Your task to perform on an android device: Add panasonic triple a to the cart on amazon, then select checkout. Image 0: 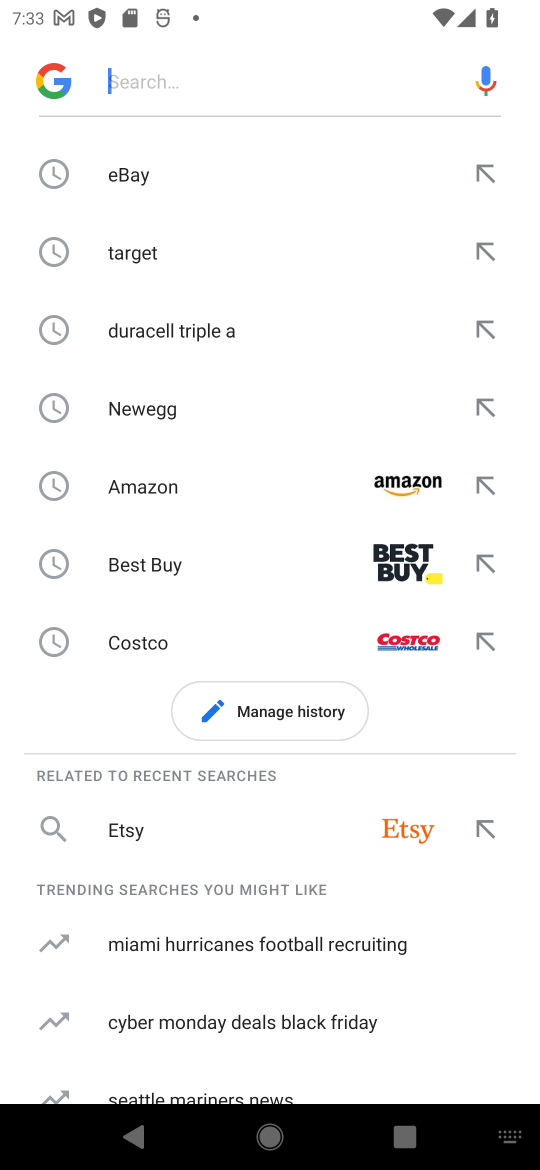
Step 0: press home button
Your task to perform on an android device: Add panasonic triple a to the cart on amazon, then select checkout. Image 1: 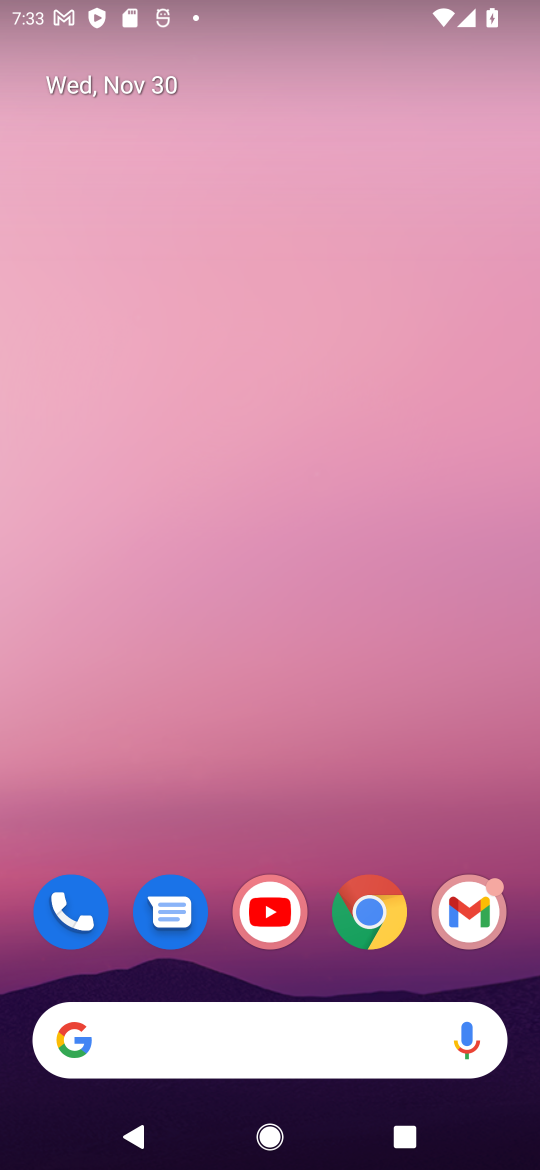
Step 1: click (247, 1048)
Your task to perform on an android device: Add panasonic triple a to the cart on amazon, then select checkout. Image 2: 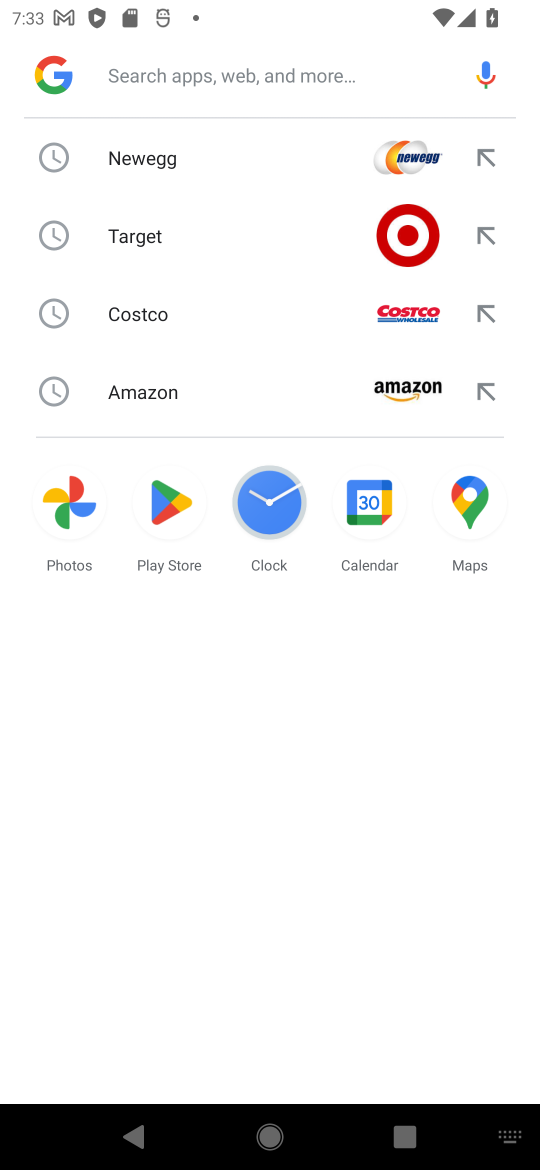
Step 2: click (259, 417)
Your task to perform on an android device: Add panasonic triple a to the cart on amazon, then select checkout. Image 3: 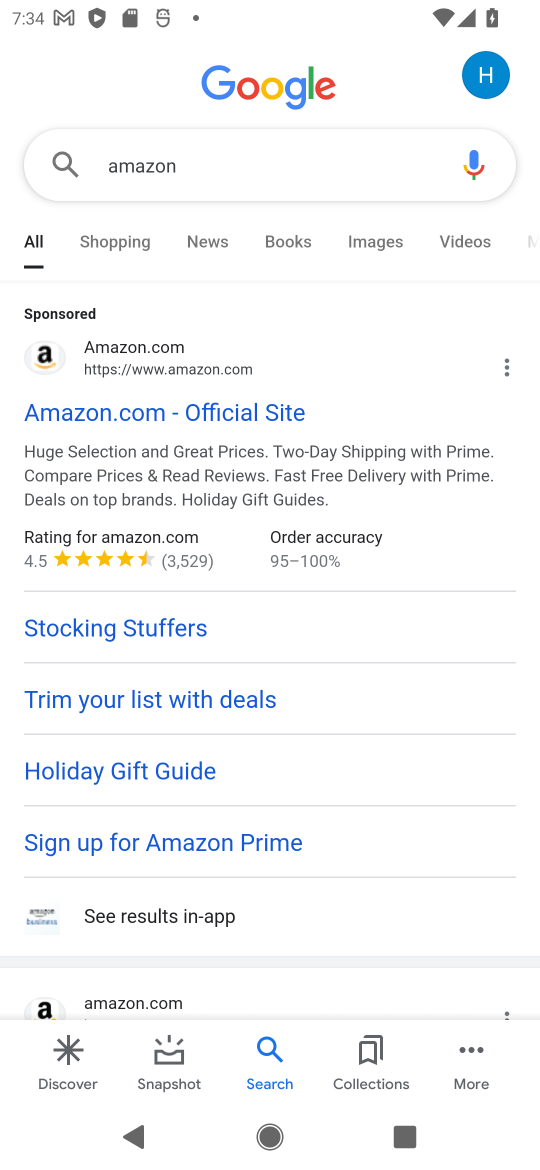
Step 3: click (138, 353)
Your task to perform on an android device: Add panasonic triple a to the cart on amazon, then select checkout. Image 4: 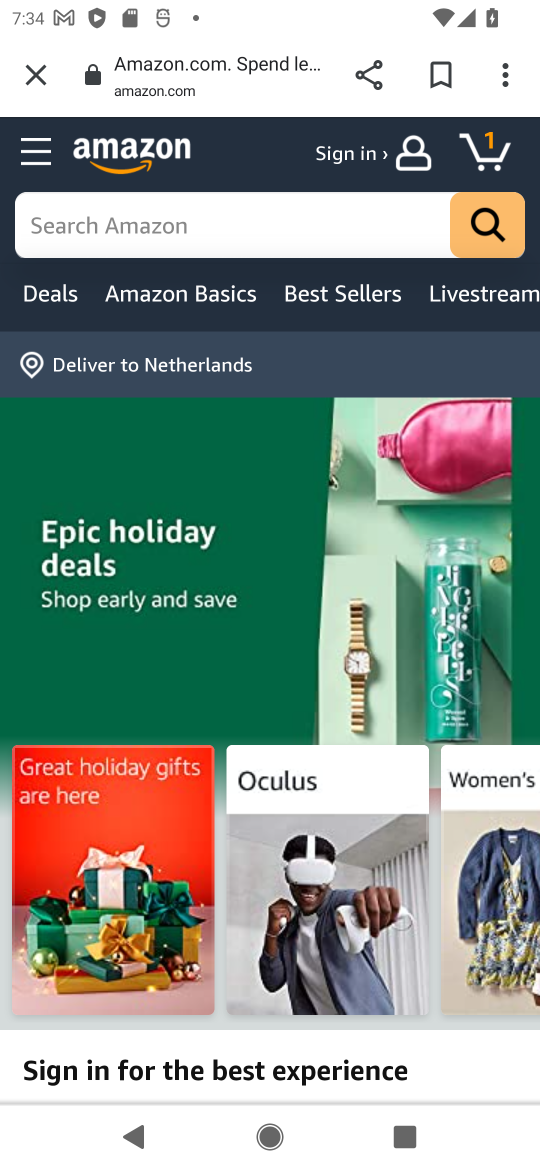
Step 4: click (120, 362)
Your task to perform on an android device: Add panasonic triple a to the cart on amazon, then select checkout. Image 5: 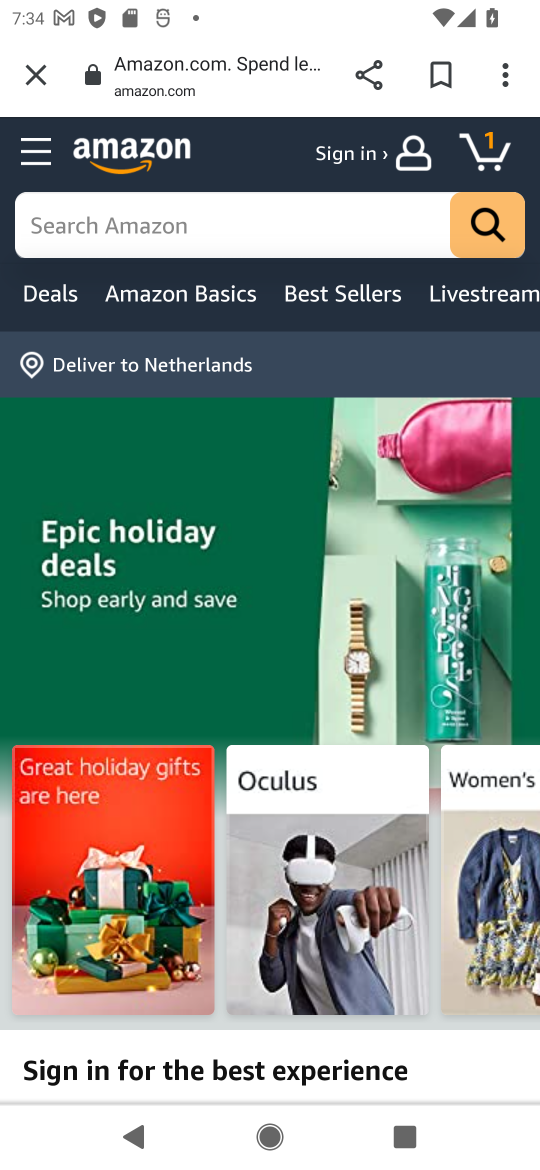
Step 5: click (87, 425)
Your task to perform on an android device: Add panasonic triple a to the cart on amazon, then select checkout. Image 6: 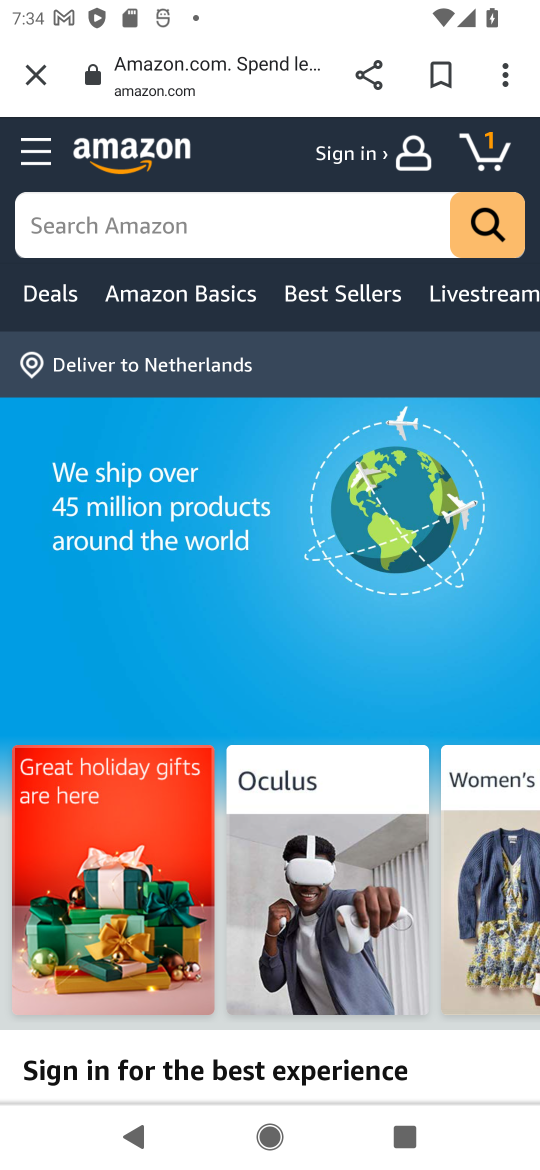
Step 6: press home button
Your task to perform on an android device: Add panasonic triple a to the cart on amazon, then select checkout. Image 7: 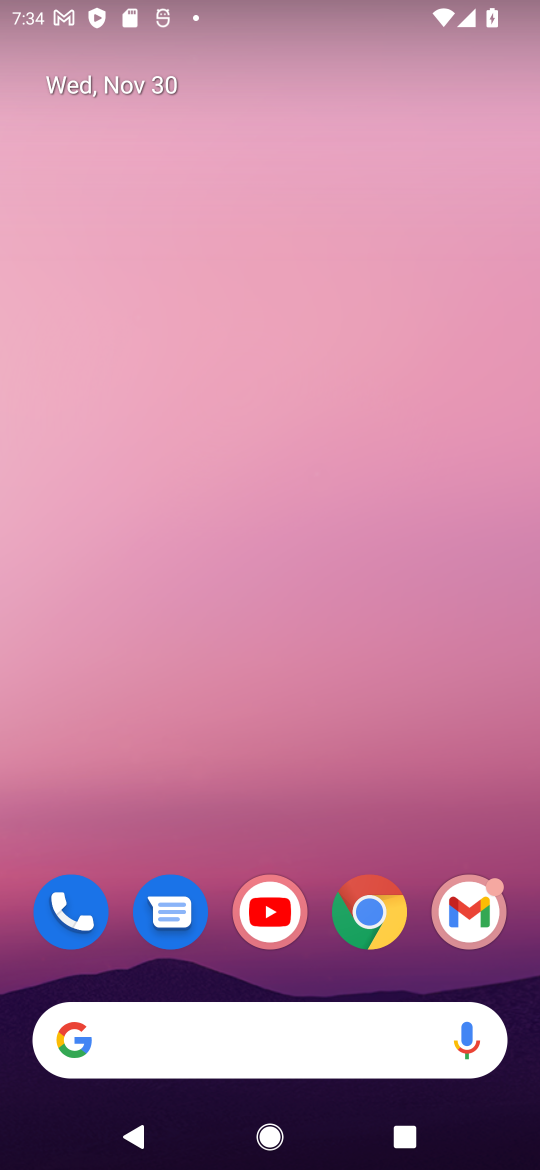
Step 7: click (254, 59)
Your task to perform on an android device: Add panasonic triple a to the cart on amazon, then select checkout. Image 8: 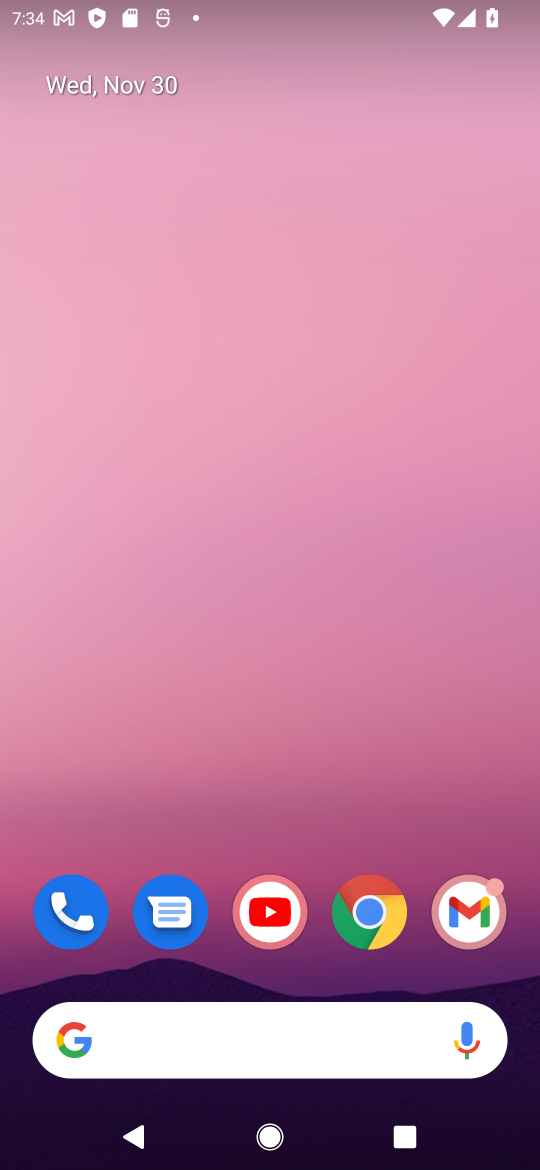
Step 8: click (301, 1027)
Your task to perform on an android device: Add panasonic triple a to the cart on amazon, then select checkout. Image 9: 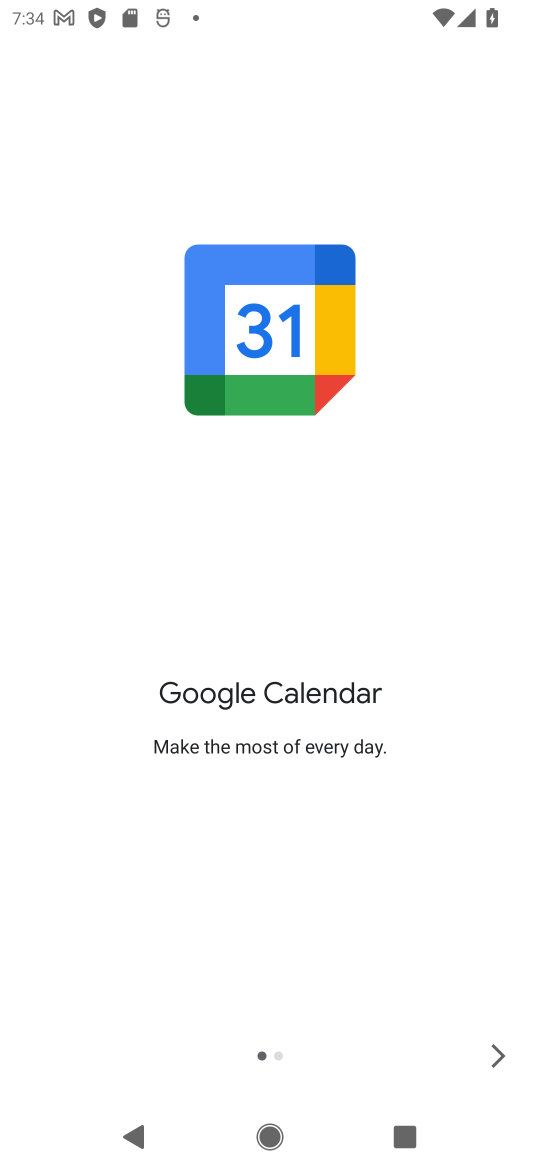
Step 9: press home button
Your task to perform on an android device: Add panasonic triple a to the cart on amazon, then select checkout. Image 10: 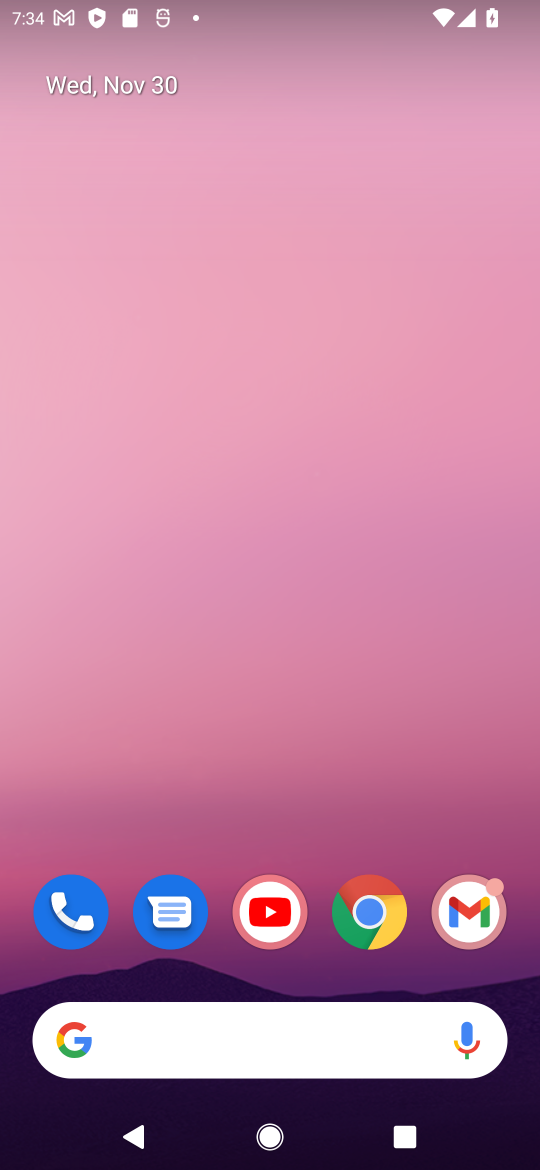
Step 10: click (262, 1041)
Your task to perform on an android device: Add panasonic triple a to the cart on amazon, then select checkout. Image 11: 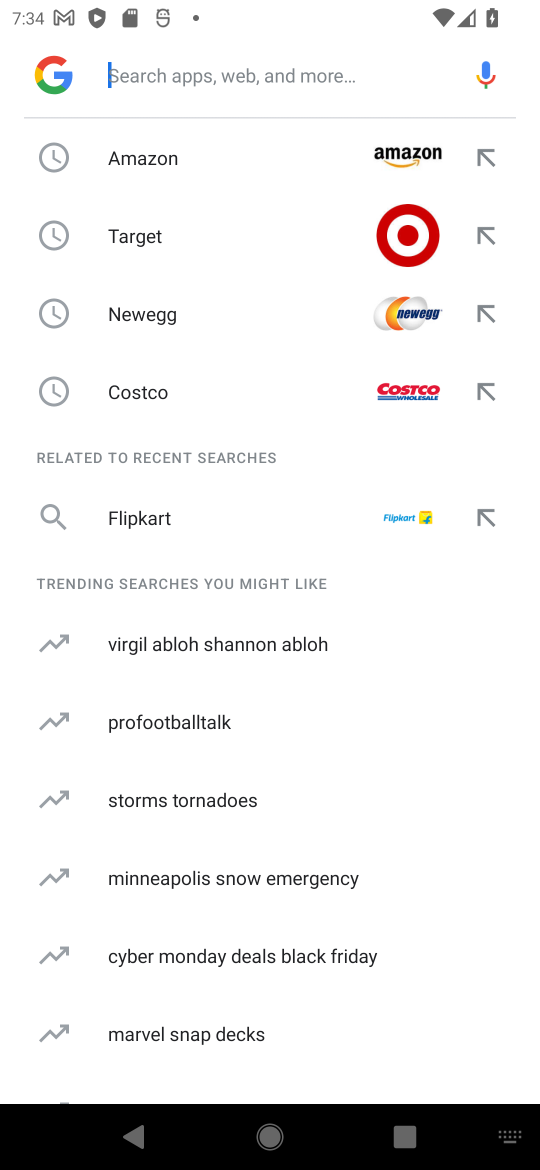
Step 11: click (269, 159)
Your task to perform on an android device: Add panasonic triple a to the cart on amazon, then select checkout. Image 12: 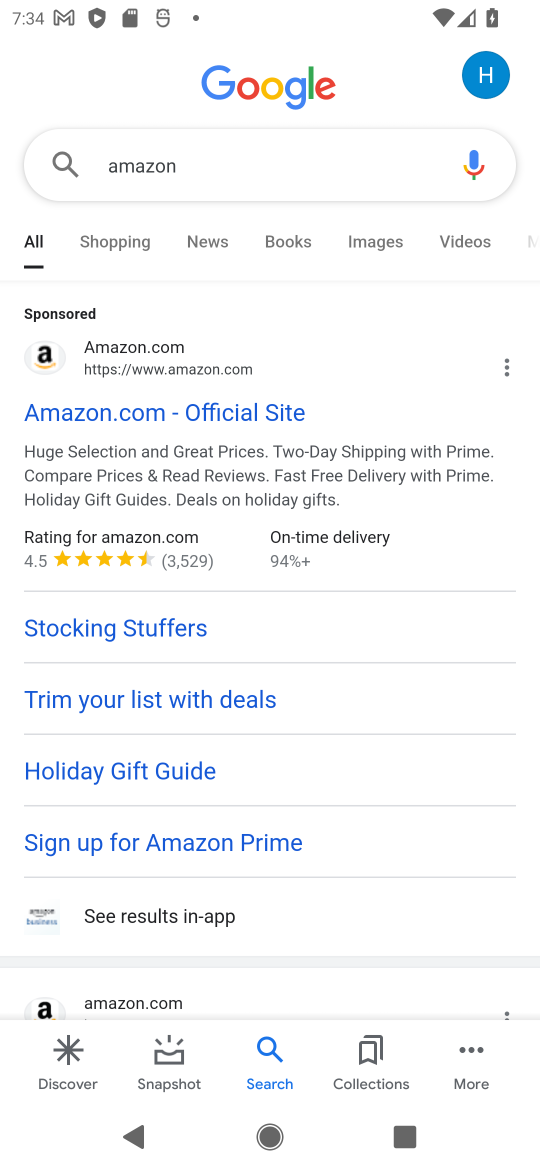
Step 12: click (110, 415)
Your task to perform on an android device: Add panasonic triple a to the cart on amazon, then select checkout. Image 13: 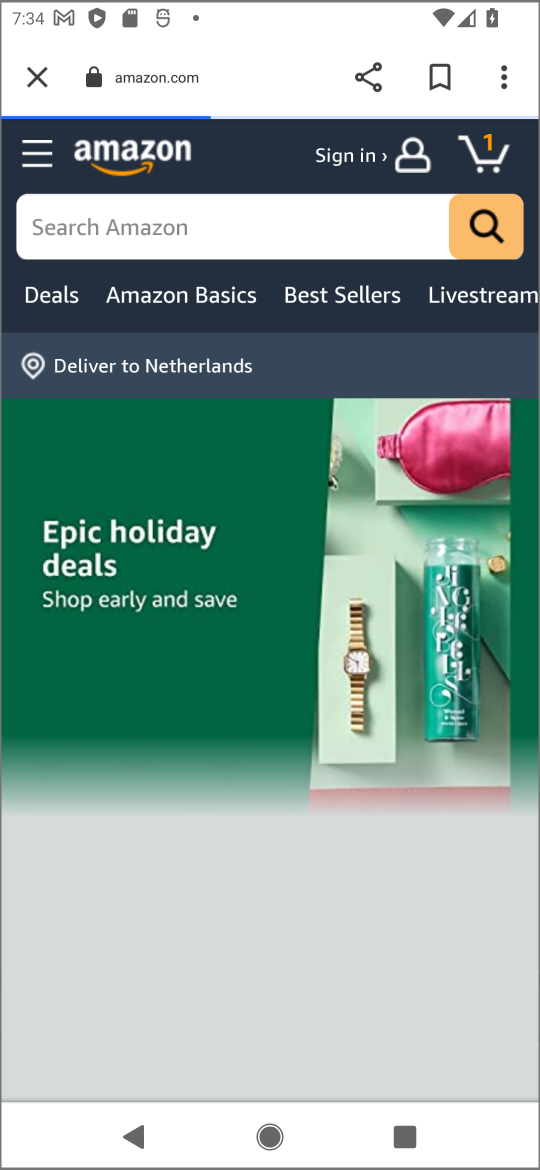
Step 13: click (147, 358)
Your task to perform on an android device: Add panasonic triple a to the cart on amazon, then select checkout. Image 14: 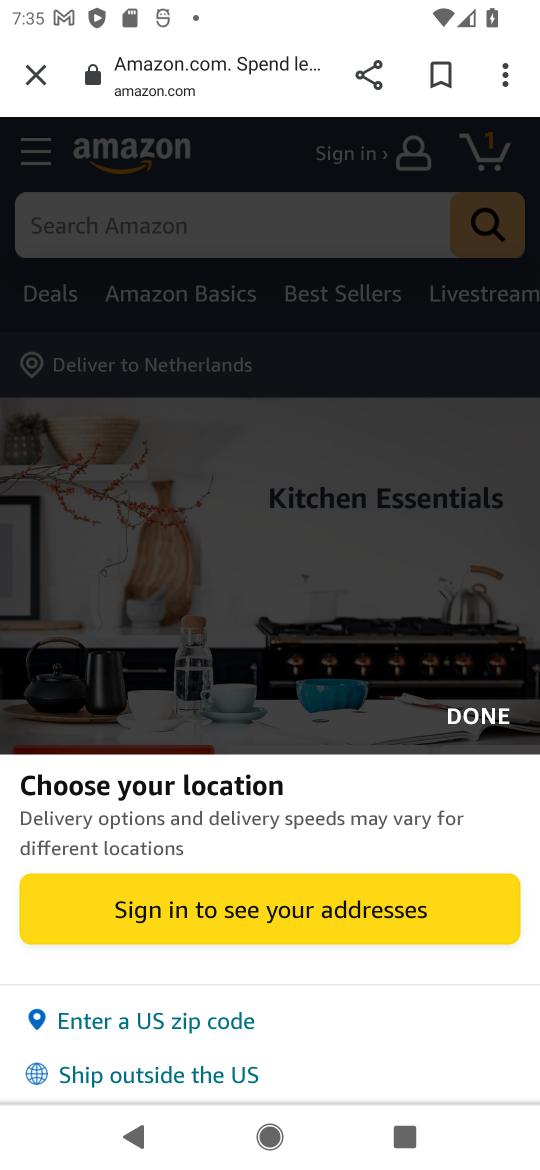
Step 14: click (493, 713)
Your task to perform on an android device: Add panasonic triple a to the cart on amazon, then select checkout. Image 15: 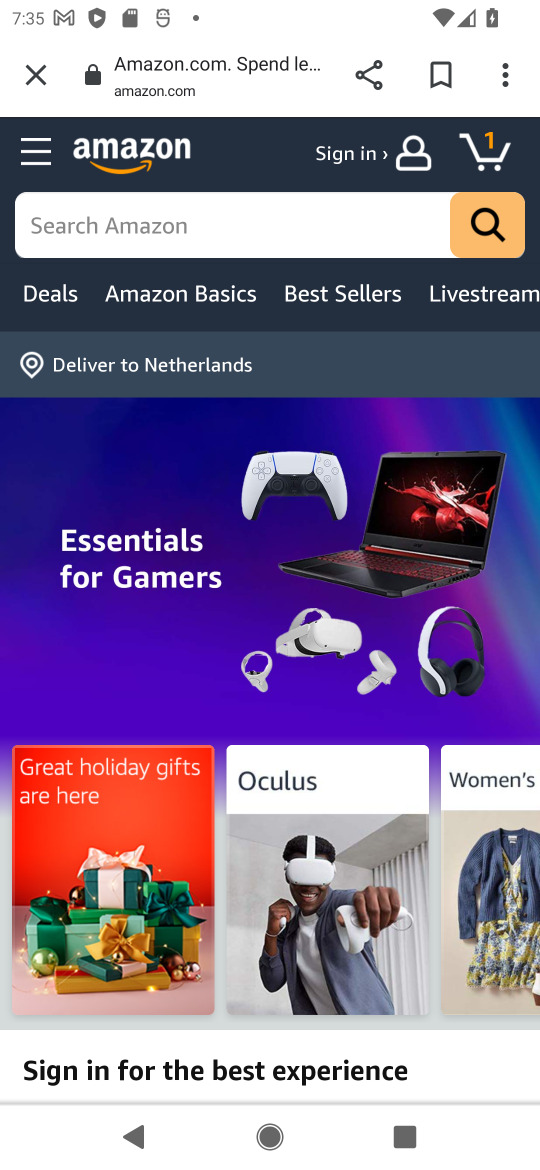
Step 15: click (284, 213)
Your task to perform on an android device: Add panasonic triple a to the cart on amazon, then select checkout. Image 16: 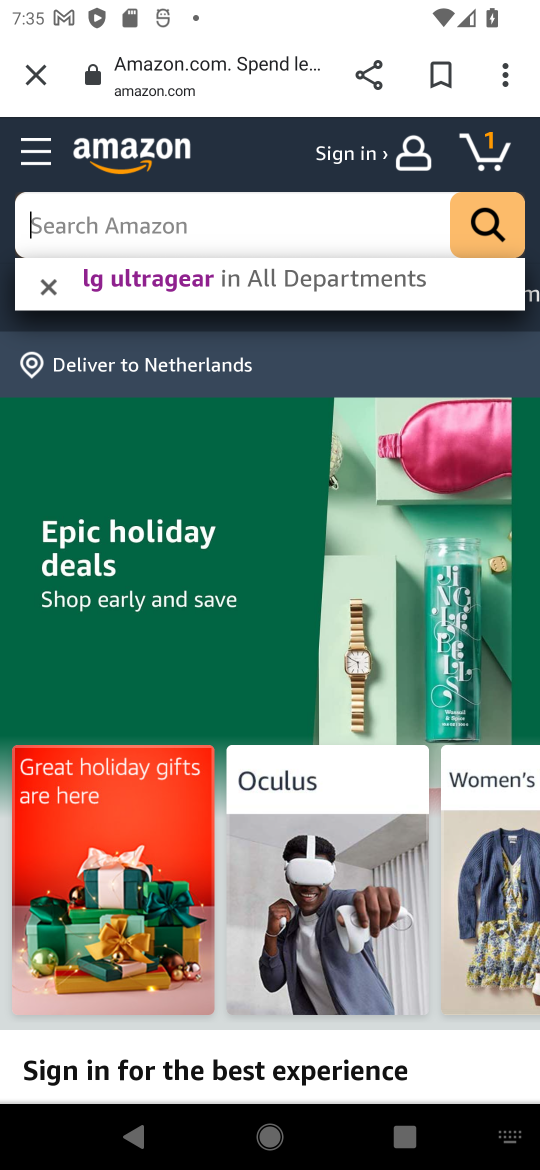
Step 16: type "panasonic triple a"
Your task to perform on an android device: Add panasonic triple a to the cart on amazon, then select checkout. Image 17: 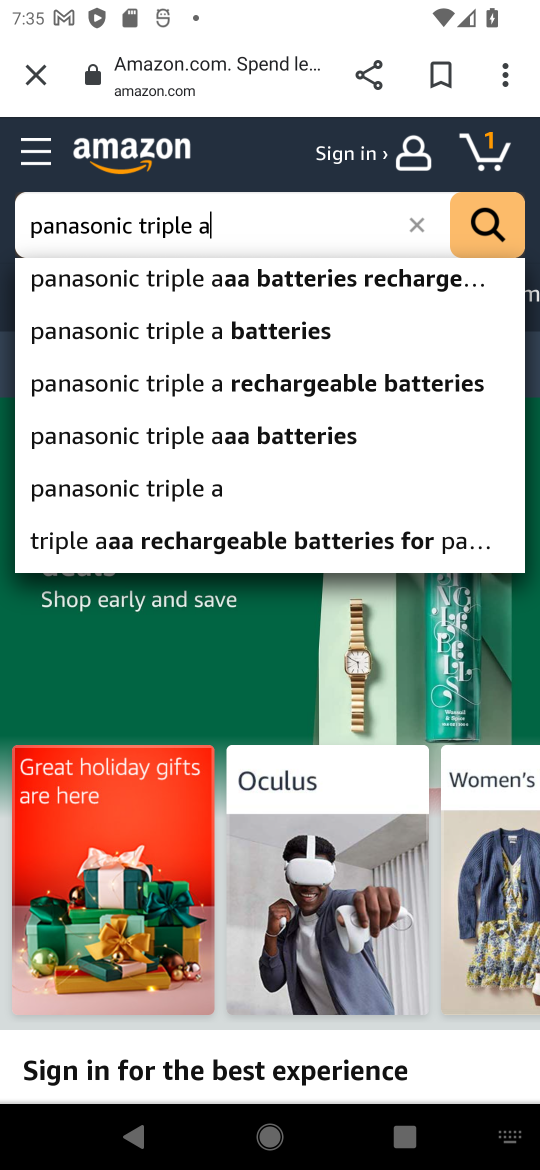
Step 17: click (280, 338)
Your task to perform on an android device: Add panasonic triple a to the cart on amazon, then select checkout. Image 18: 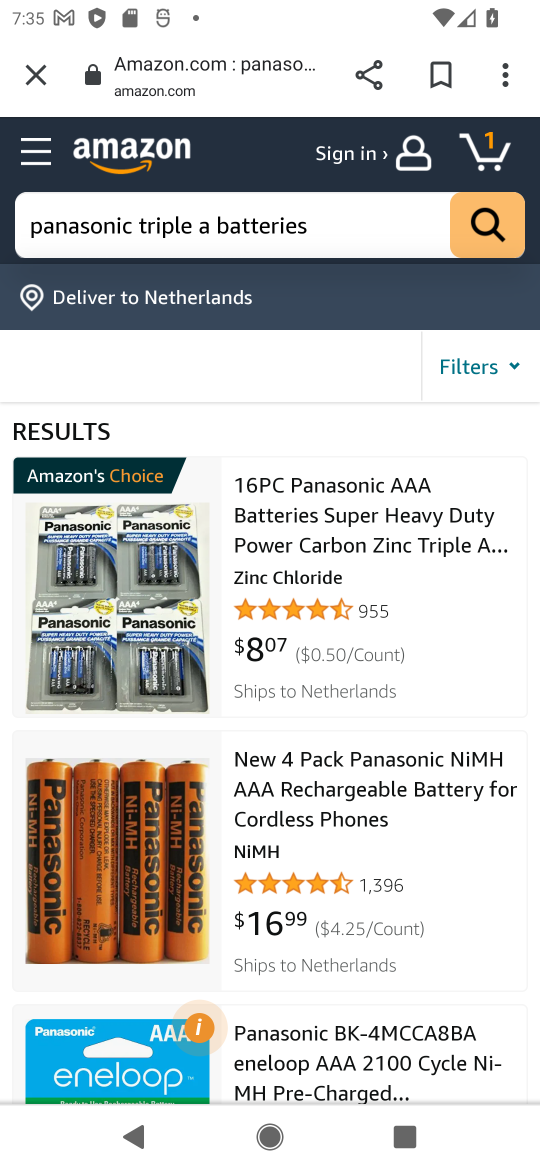
Step 18: click (235, 518)
Your task to perform on an android device: Add panasonic triple a to the cart on amazon, then select checkout. Image 19: 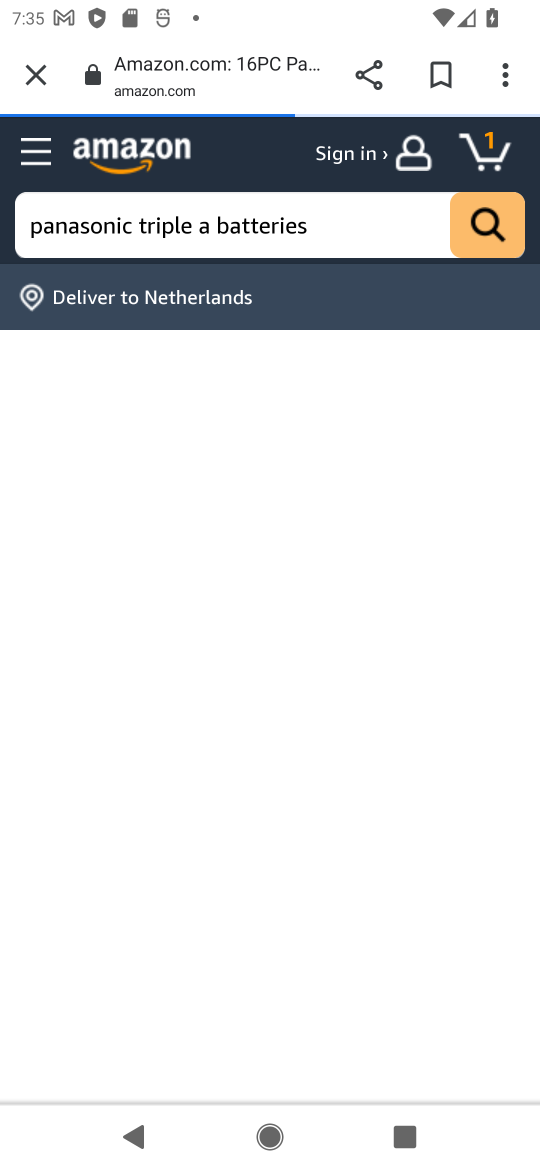
Step 19: click (312, 541)
Your task to perform on an android device: Add panasonic triple a to the cart on amazon, then select checkout. Image 20: 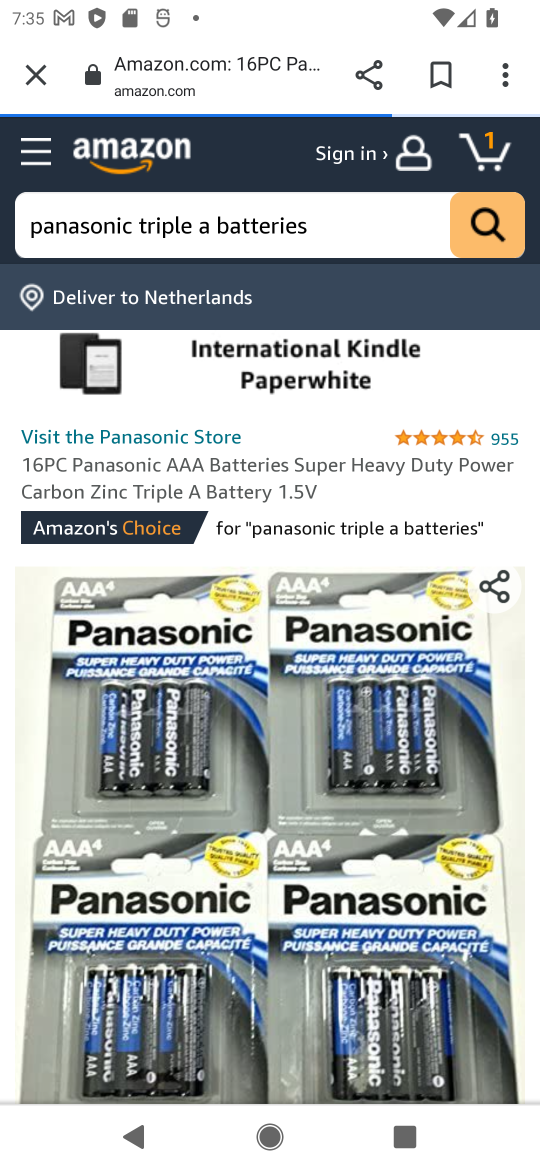
Step 20: drag from (312, 918) to (498, 339)
Your task to perform on an android device: Add panasonic triple a to the cart on amazon, then select checkout. Image 21: 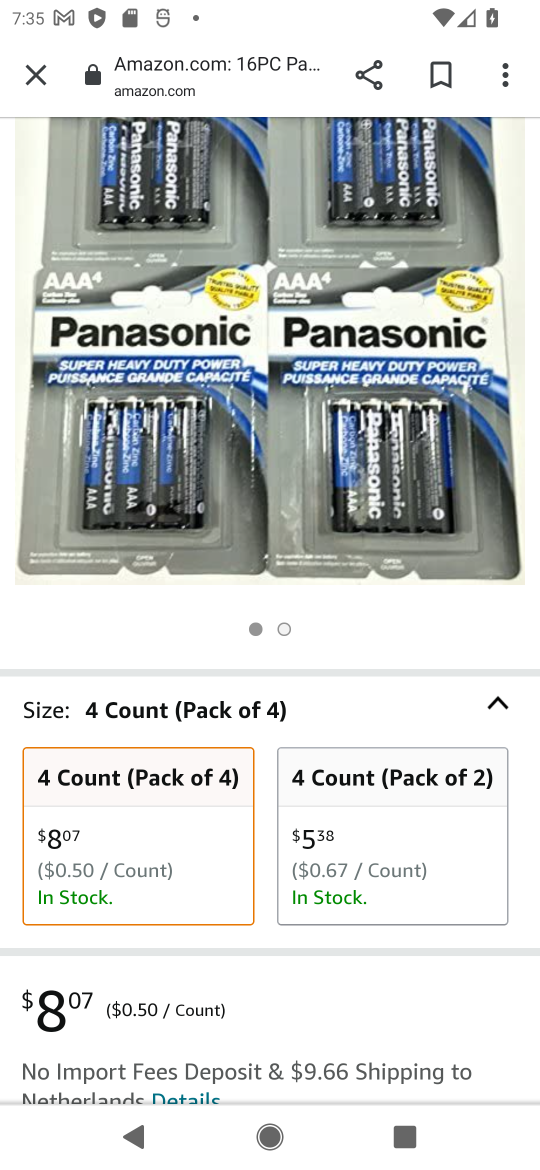
Step 21: drag from (190, 1027) to (265, 601)
Your task to perform on an android device: Add panasonic triple a to the cart on amazon, then select checkout. Image 22: 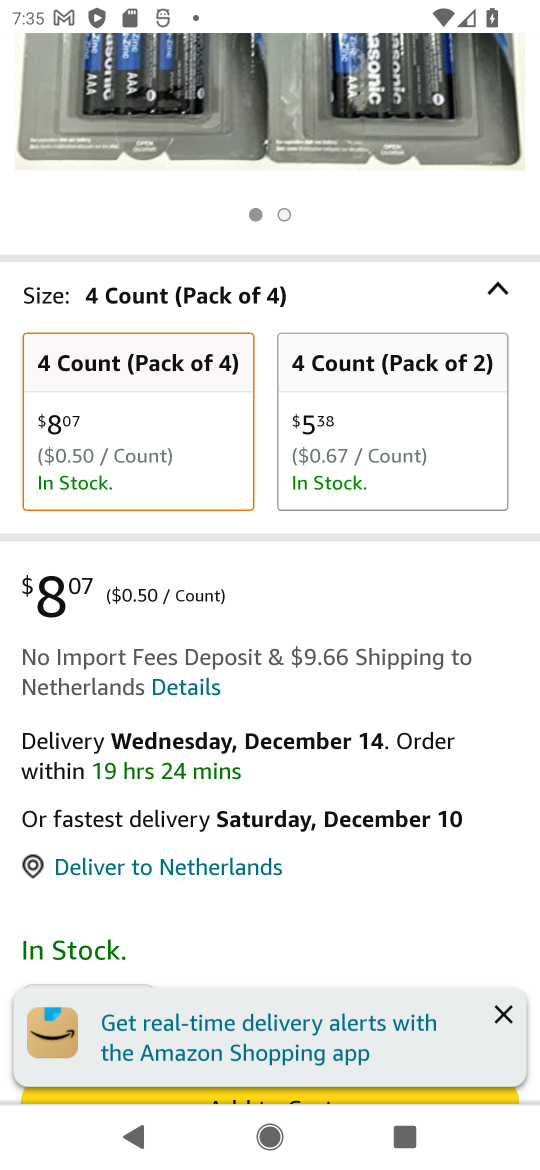
Step 22: drag from (236, 975) to (296, 559)
Your task to perform on an android device: Add panasonic triple a to the cart on amazon, then select checkout. Image 23: 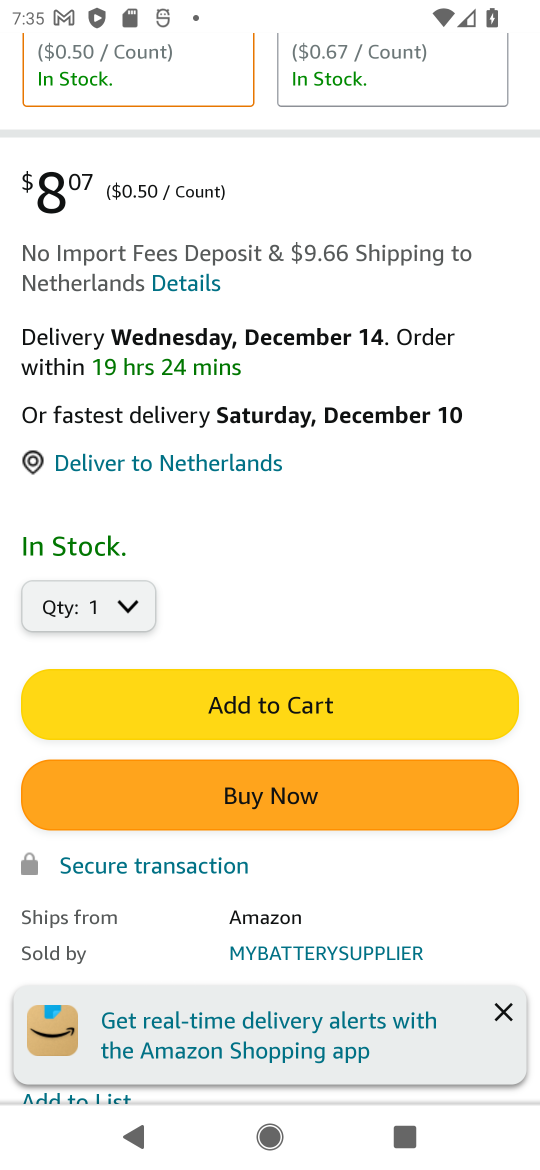
Step 23: click (292, 691)
Your task to perform on an android device: Add panasonic triple a to the cart on amazon, then select checkout. Image 24: 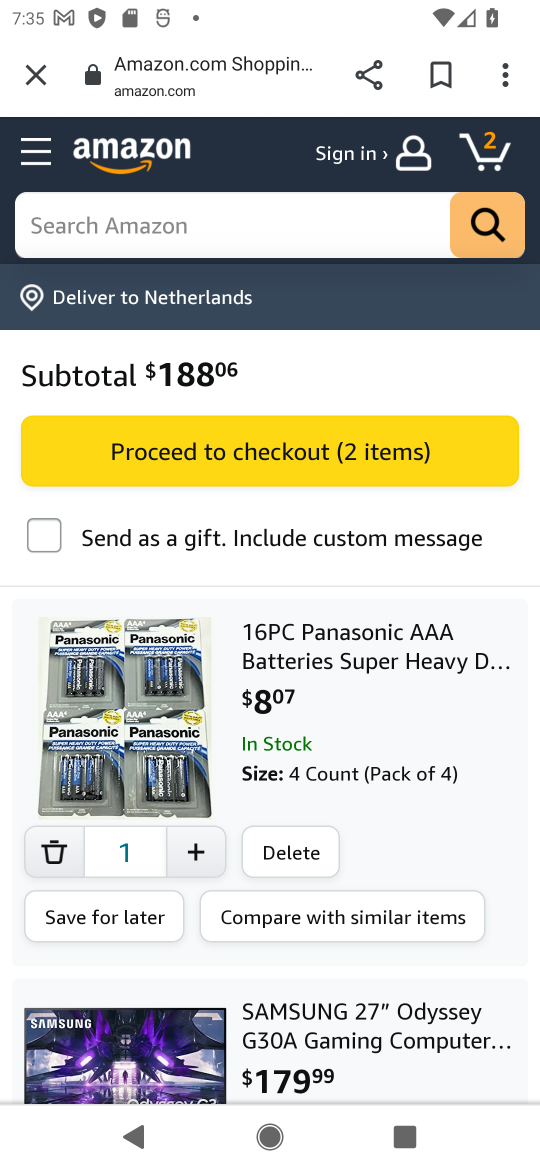
Step 24: task complete